Your task to perform on an android device: Check the weather Image 0: 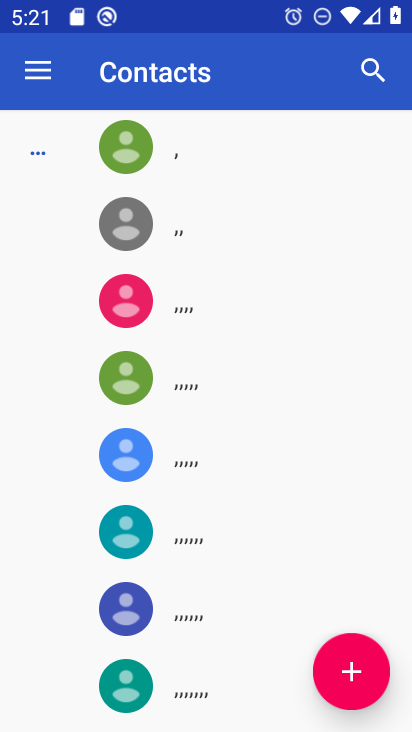
Step 0: press home button
Your task to perform on an android device: Check the weather Image 1: 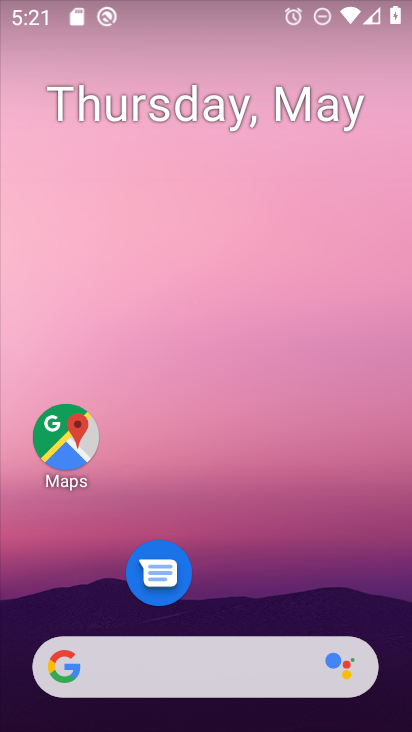
Step 1: click (196, 660)
Your task to perform on an android device: Check the weather Image 2: 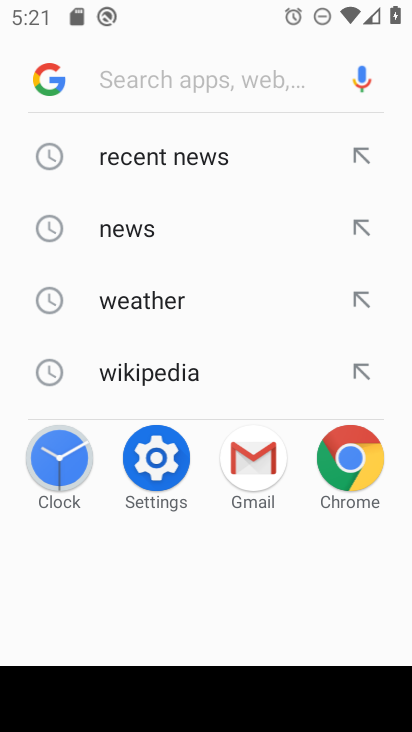
Step 2: click (159, 304)
Your task to perform on an android device: Check the weather Image 3: 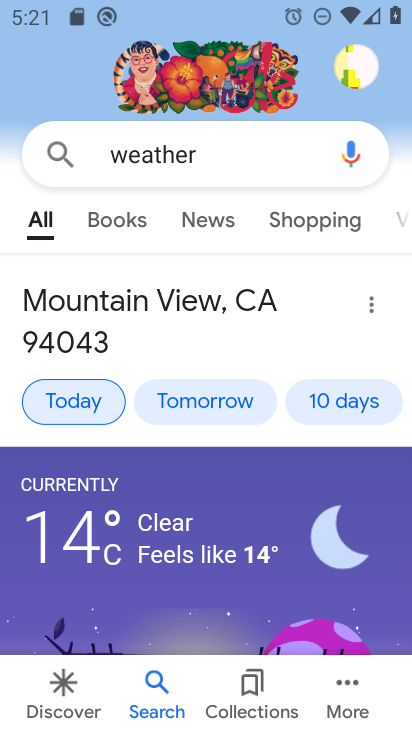
Step 3: drag from (193, 614) to (235, 310)
Your task to perform on an android device: Check the weather Image 4: 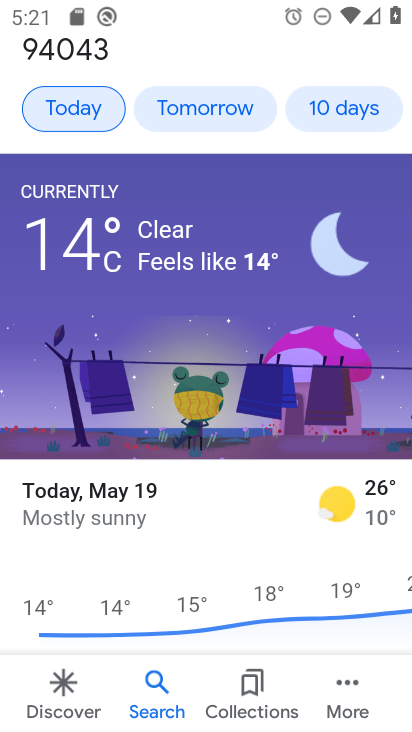
Step 4: click (207, 281)
Your task to perform on an android device: Check the weather Image 5: 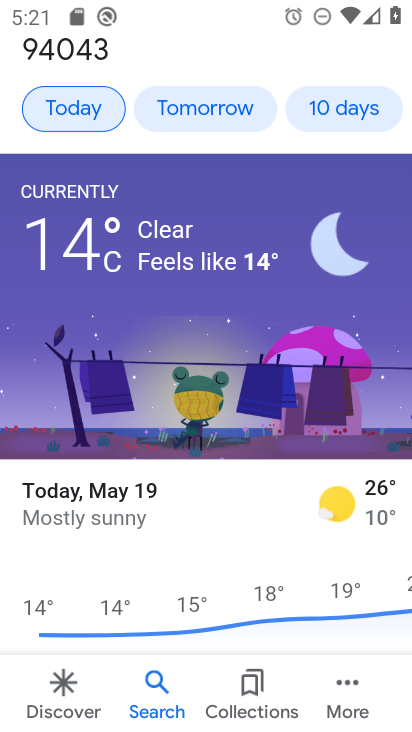
Step 5: task complete